Your task to perform on an android device: turn off priority inbox in the gmail app Image 0: 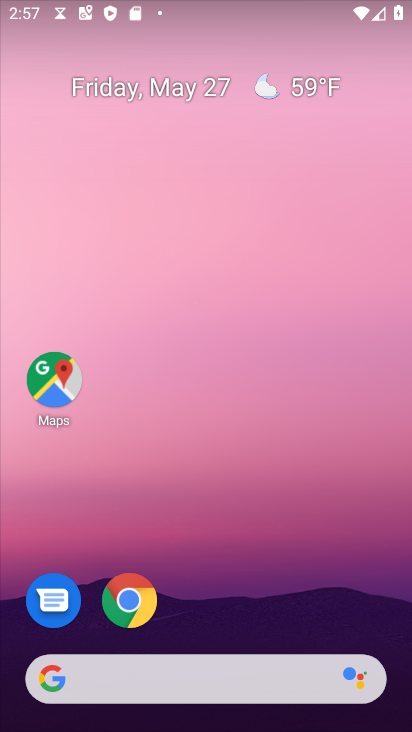
Step 0: drag from (264, 614) to (250, 132)
Your task to perform on an android device: turn off priority inbox in the gmail app Image 1: 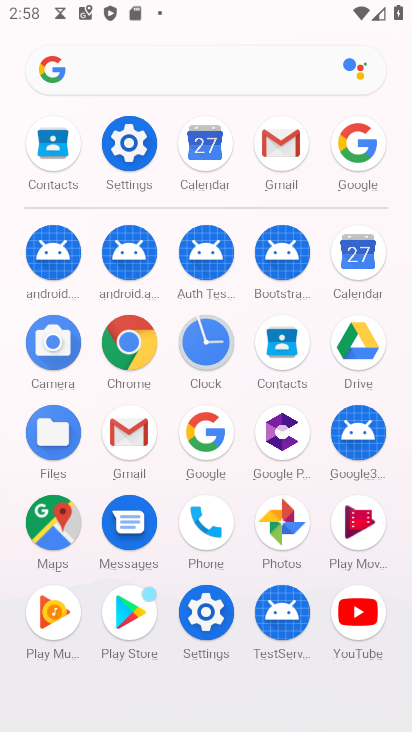
Step 1: click (283, 145)
Your task to perform on an android device: turn off priority inbox in the gmail app Image 2: 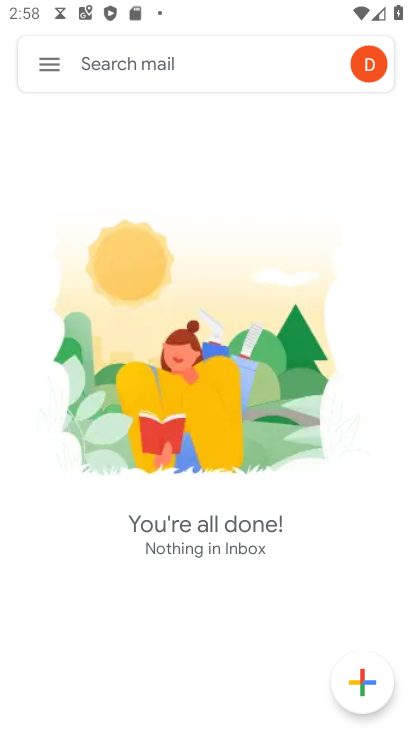
Step 2: click (53, 65)
Your task to perform on an android device: turn off priority inbox in the gmail app Image 3: 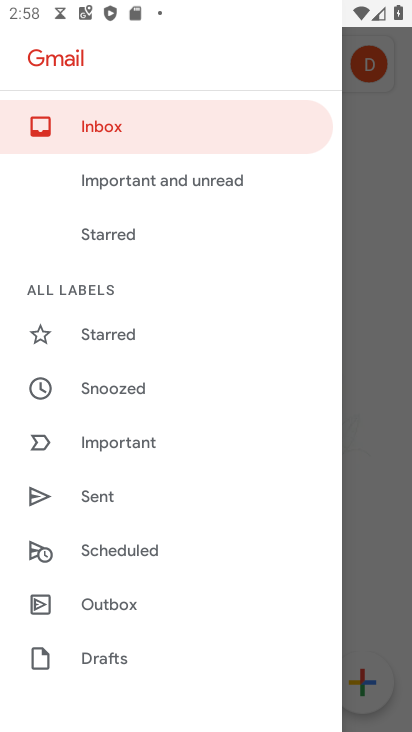
Step 3: drag from (140, 485) to (170, 395)
Your task to perform on an android device: turn off priority inbox in the gmail app Image 4: 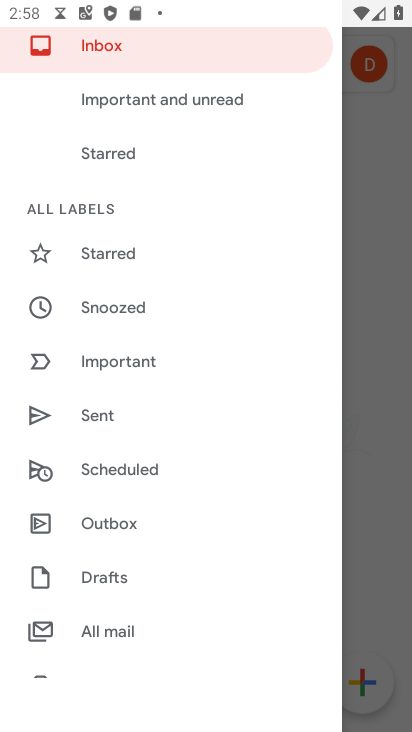
Step 4: drag from (118, 487) to (161, 421)
Your task to perform on an android device: turn off priority inbox in the gmail app Image 5: 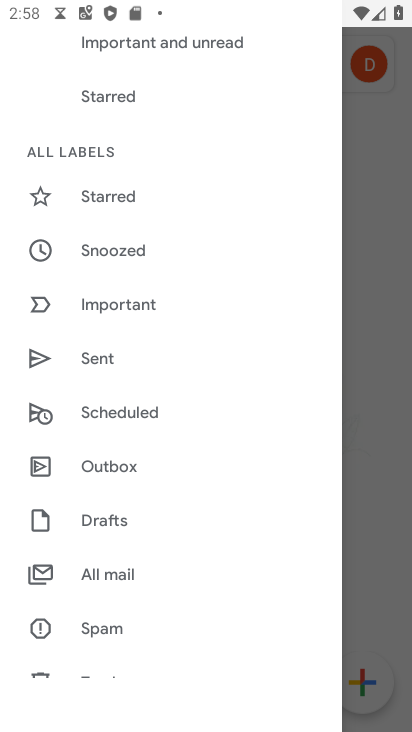
Step 5: drag from (102, 540) to (145, 465)
Your task to perform on an android device: turn off priority inbox in the gmail app Image 6: 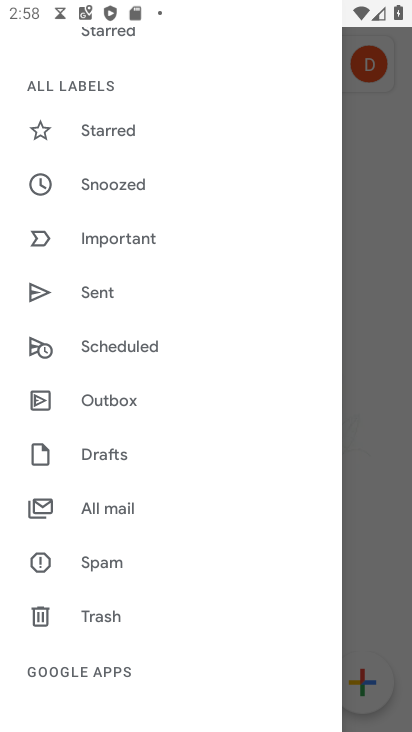
Step 6: drag from (114, 580) to (141, 471)
Your task to perform on an android device: turn off priority inbox in the gmail app Image 7: 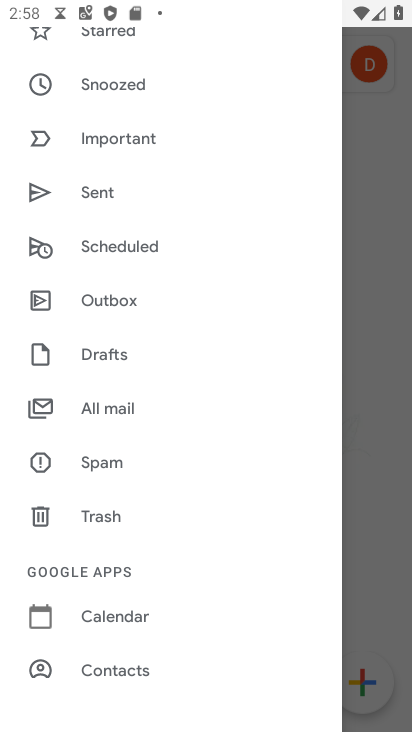
Step 7: drag from (114, 639) to (181, 508)
Your task to perform on an android device: turn off priority inbox in the gmail app Image 8: 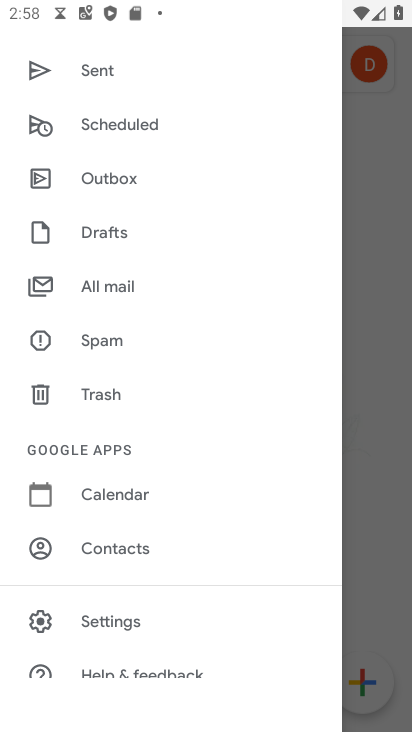
Step 8: drag from (112, 637) to (187, 540)
Your task to perform on an android device: turn off priority inbox in the gmail app Image 9: 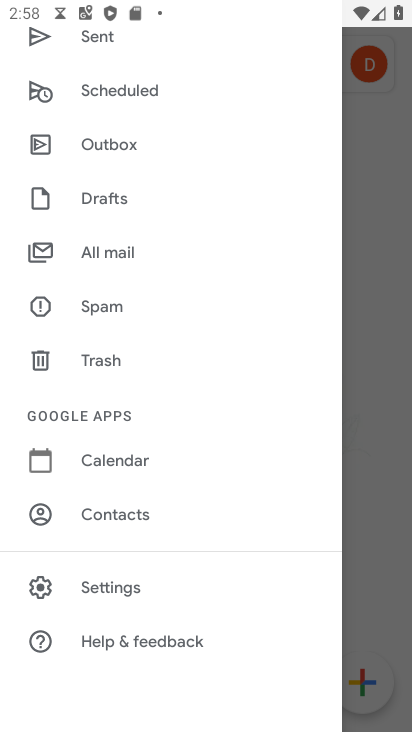
Step 9: click (134, 590)
Your task to perform on an android device: turn off priority inbox in the gmail app Image 10: 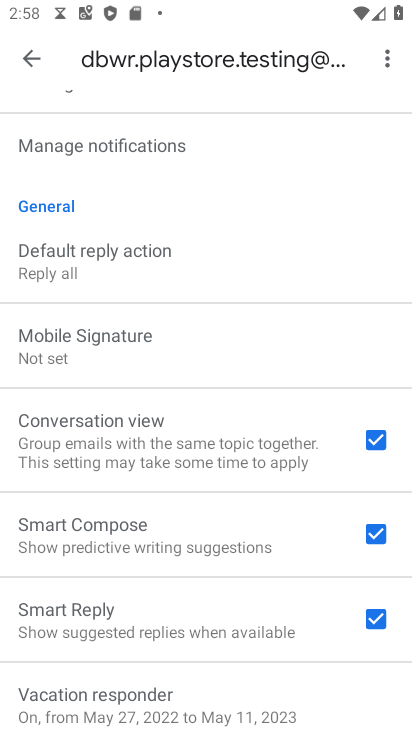
Step 10: drag from (142, 217) to (163, 390)
Your task to perform on an android device: turn off priority inbox in the gmail app Image 11: 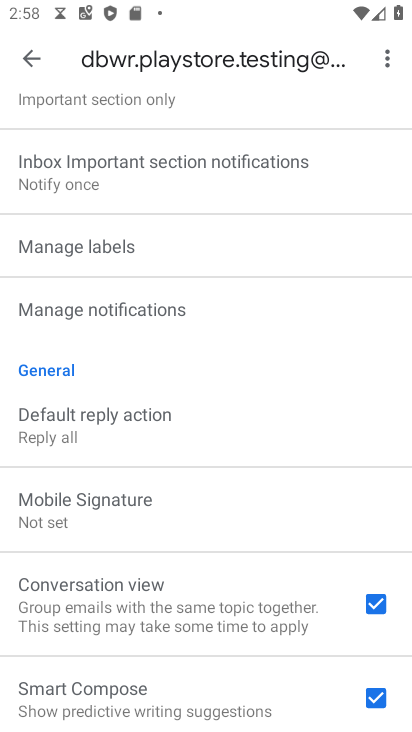
Step 11: drag from (171, 190) to (232, 375)
Your task to perform on an android device: turn off priority inbox in the gmail app Image 12: 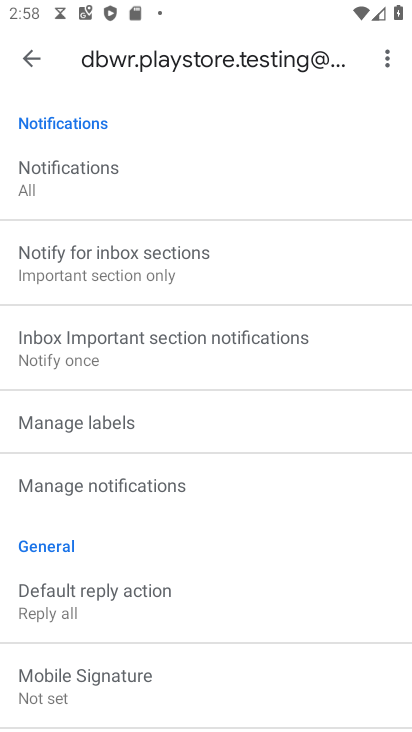
Step 12: drag from (169, 169) to (232, 333)
Your task to perform on an android device: turn off priority inbox in the gmail app Image 13: 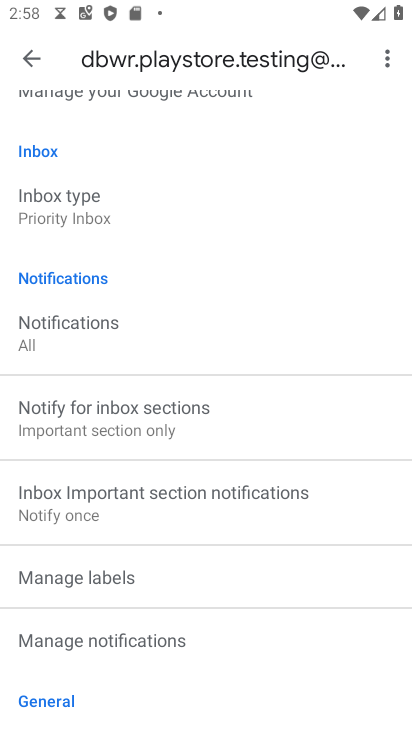
Step 13: click (105, 213)
Your task to perform on an android device: turn off priority inbox in the gmail app Image 14: 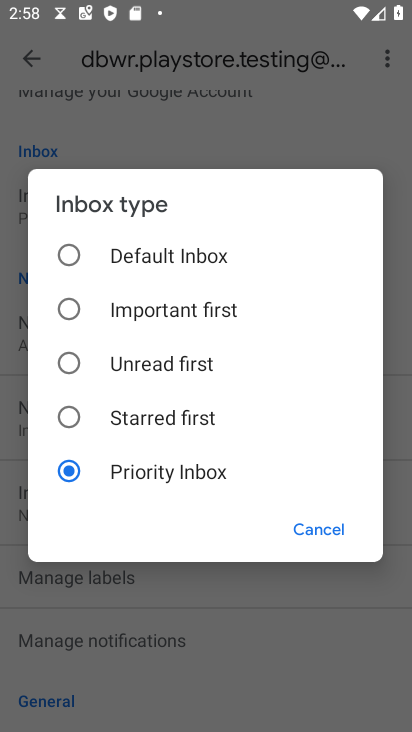
Step 14: click (69, 258)
Your task to perform on an android device: turn off priority inbox in the gmail app Image 15: 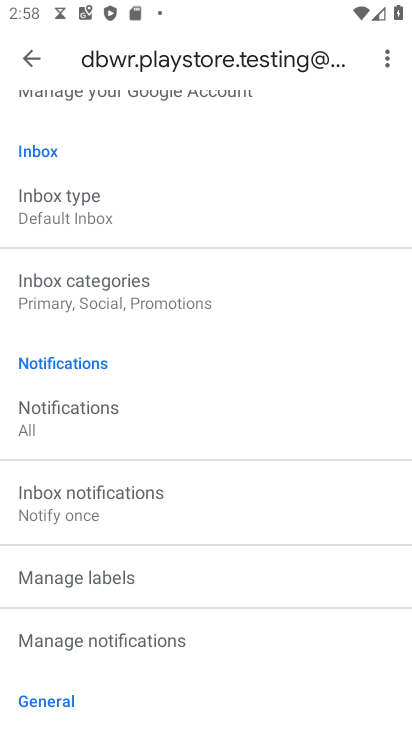
Step 15: task complete